Your task to perform on an android device: Show me the alarms in the clock app Image 0: 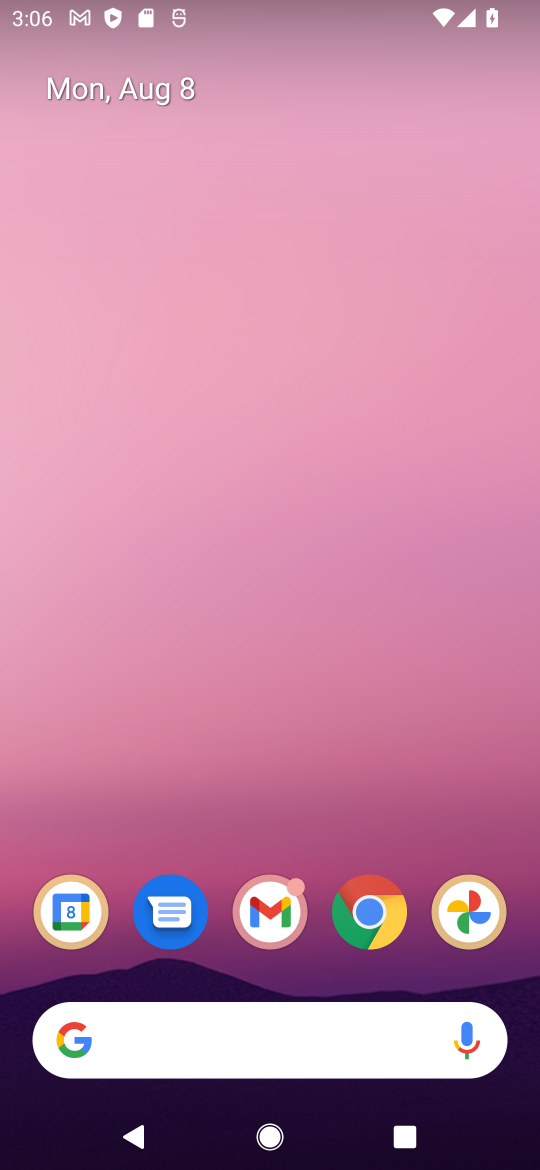
Step 0: drag from (174, 741) to (425, 155)
Your task to perform on an android device: Show me the alarms in the clock app Image 1: 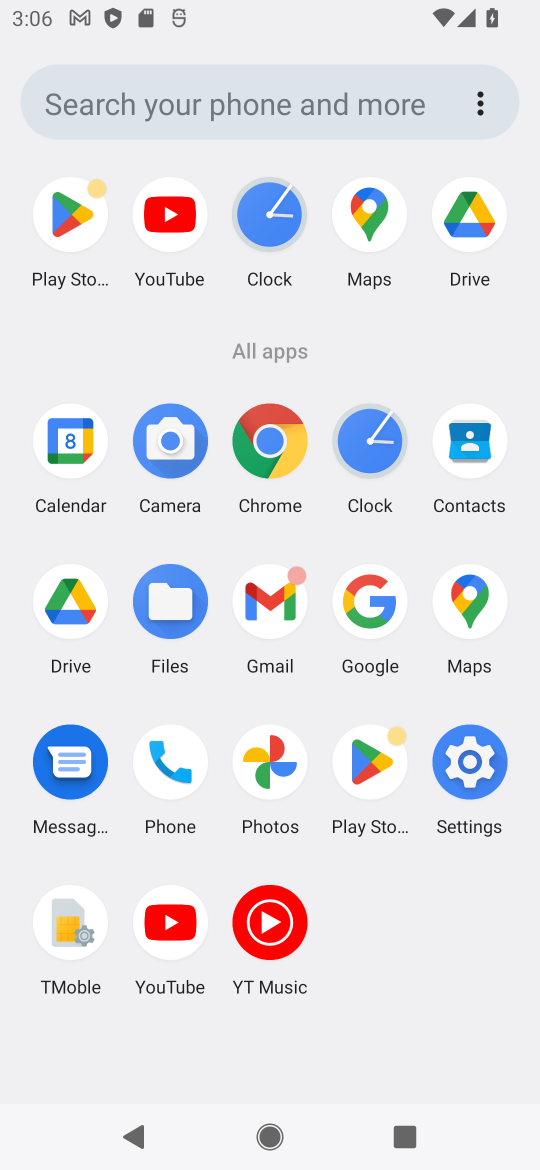
Step 1: click (273, 234)
Your task to perform on an android device: Show me the alarms in the clock app Image 2: 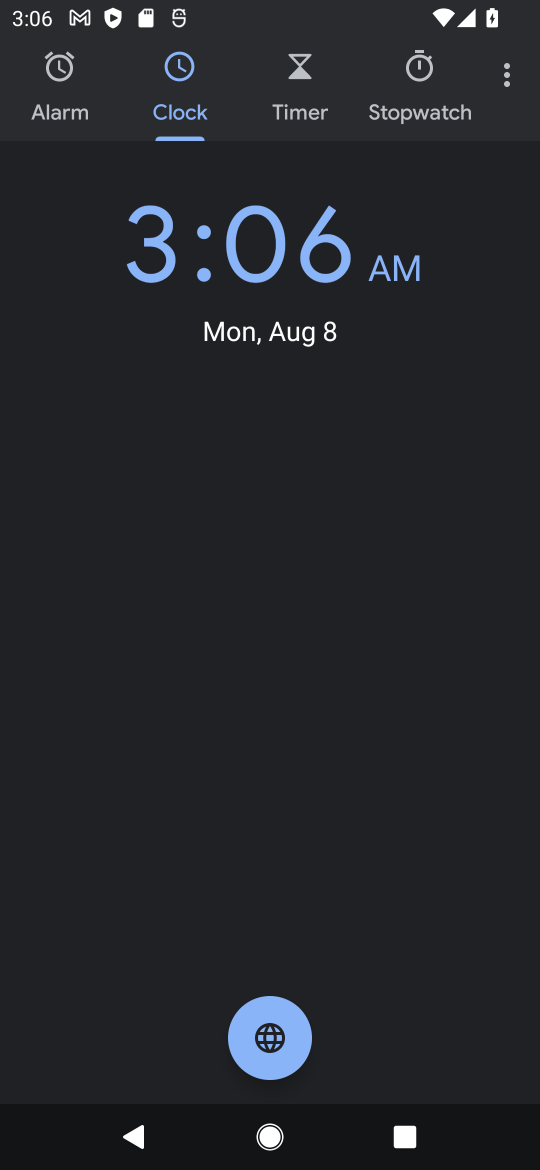
Step 2: click (140, 337)
Your task to perform on an android device: Show me the alarms in the clock app Image 3: 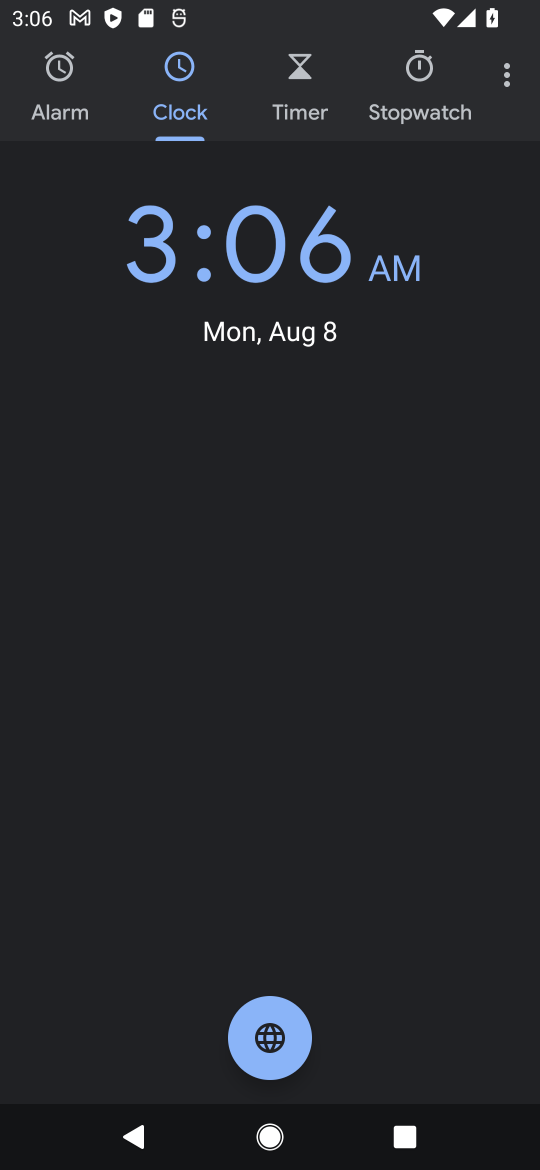
Step 3: task complete